Your task to perform on an android device: Open notification settings Image 0: 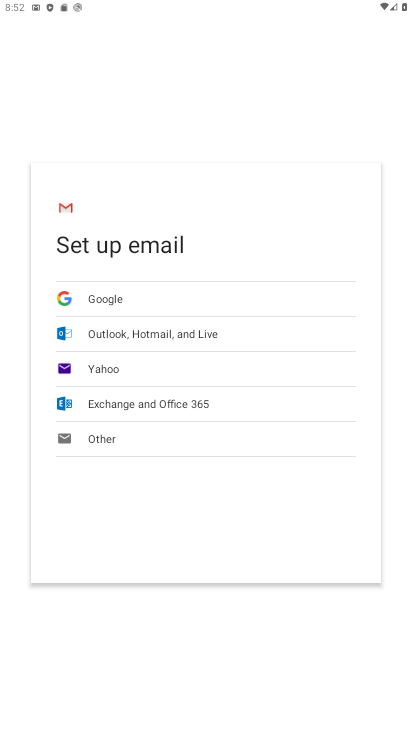
Step 0: press home button
Your task to perform on an android device: Open notification settings Image 1: 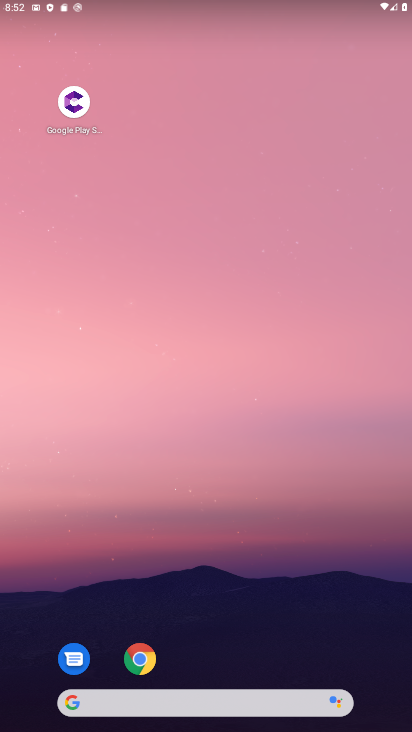
Step 1: drag from (221, 662) to (113, 4)
Your task to perform on an android device: Open notification settings Image 2: 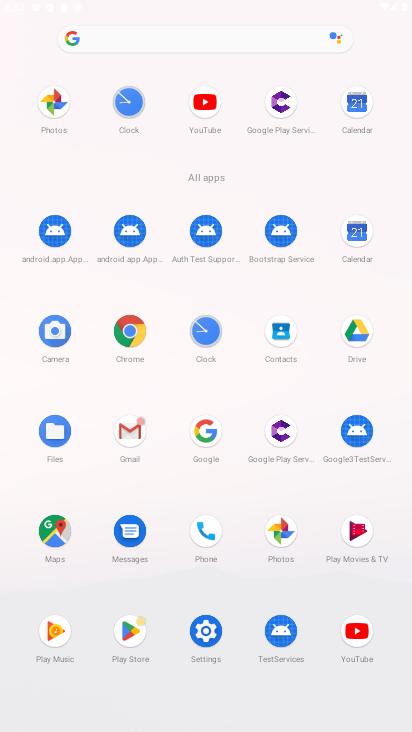
Step 2: click (210, 636)
Your task to perform on an android device: Open notification settings Image 3: 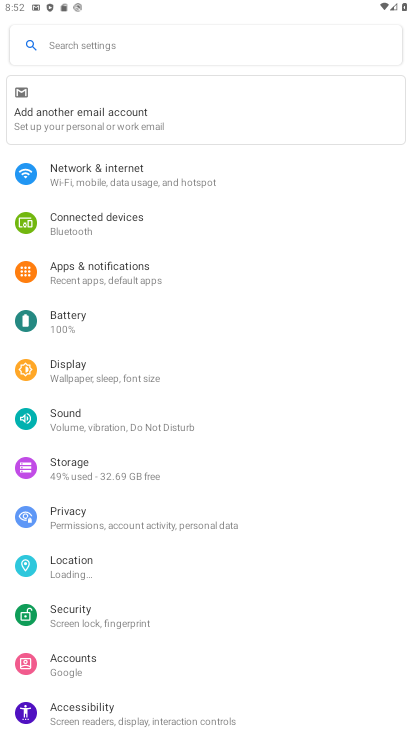
Step 3: click (91, 263)
Your task to perform on an android device: Open notification settings Image 4: 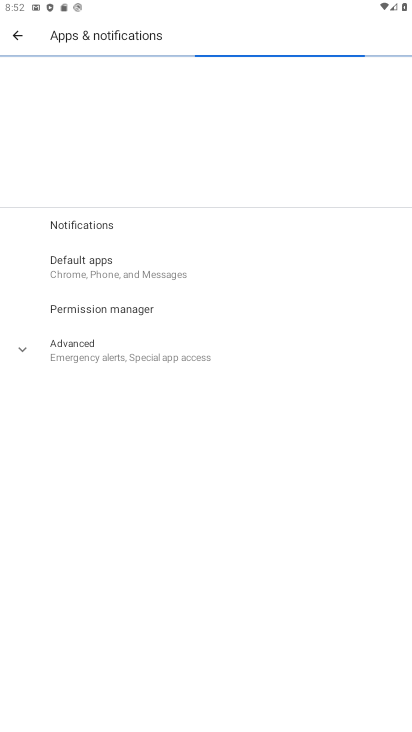
Step 4: click (94, 246)
Your task to perform on an android device: Open notification settings Image 5: 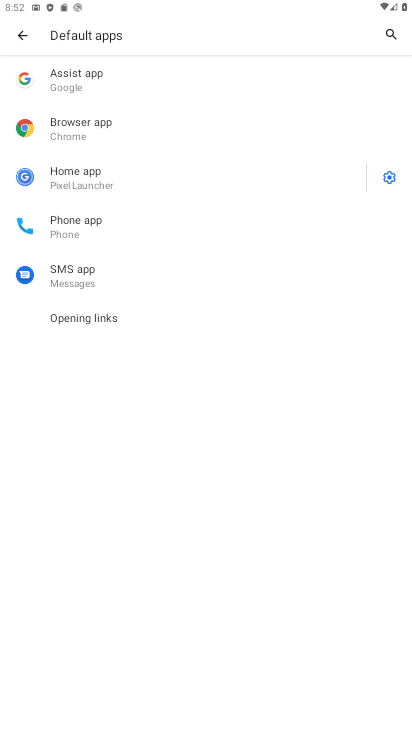
Step 5: click (31, 32)
Your task to perform on an android device: Open notification settings Image 6: 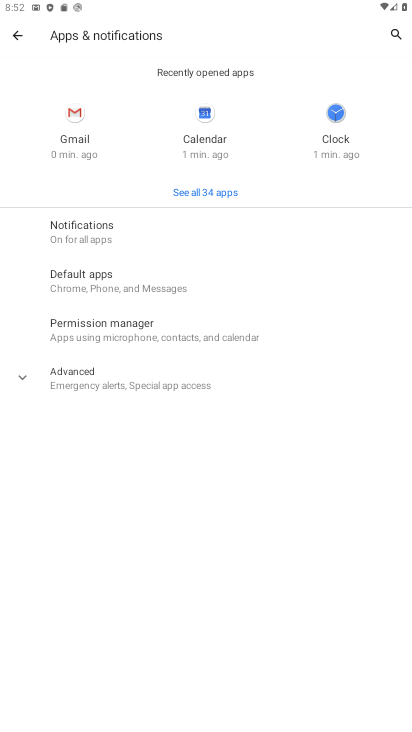
Step 6: click (84, 220)
Your task to perform on an android device: Open notification settings Image 7: 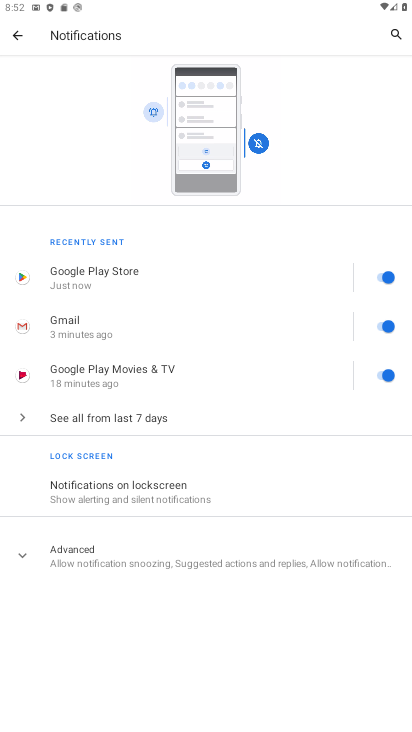
Step 7: task complete